Your task to perform on an android device: Go to eBay Image 0: 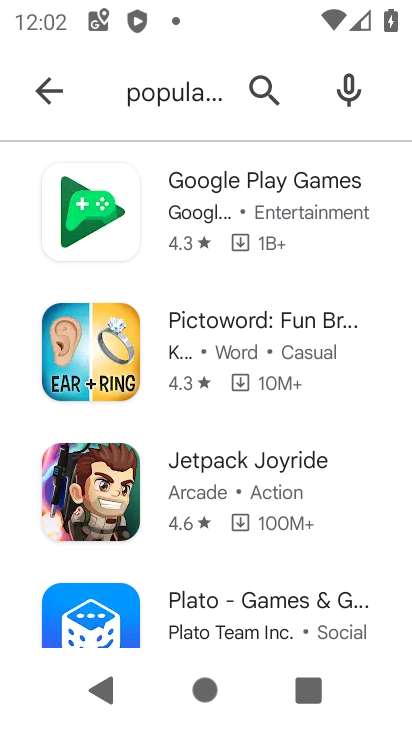
Step 0: press home button
Your task to perform on an android device: Go to eBay Image 1: 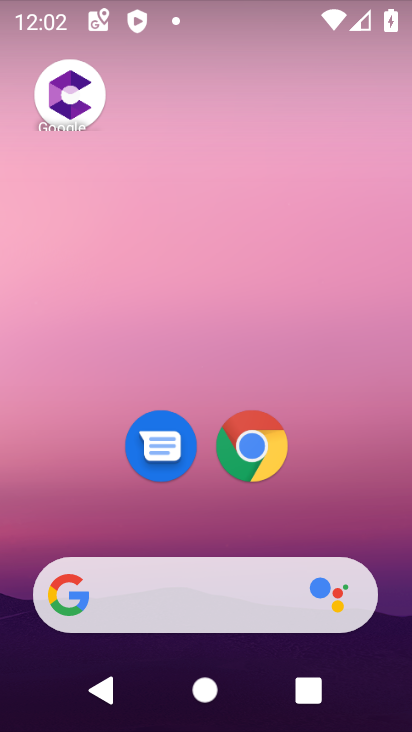
Step 1: drag from (337, 501) to (200, 0)
Your task to perform on an android device: Go to eBay Image 2: 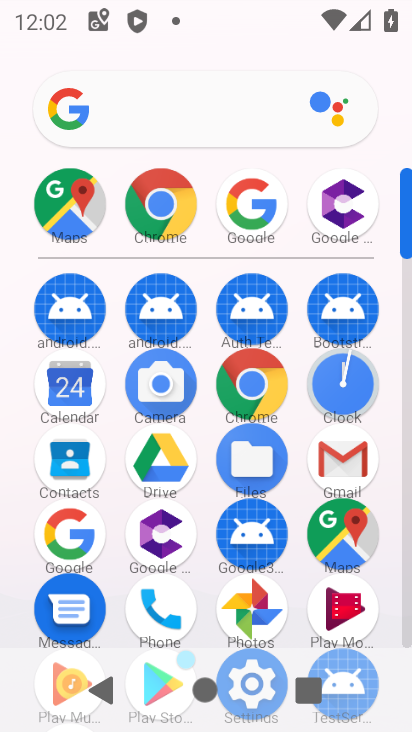
Step 2: click (165, 212)
Your task to perform on an android device: Go to eBay Image 3: 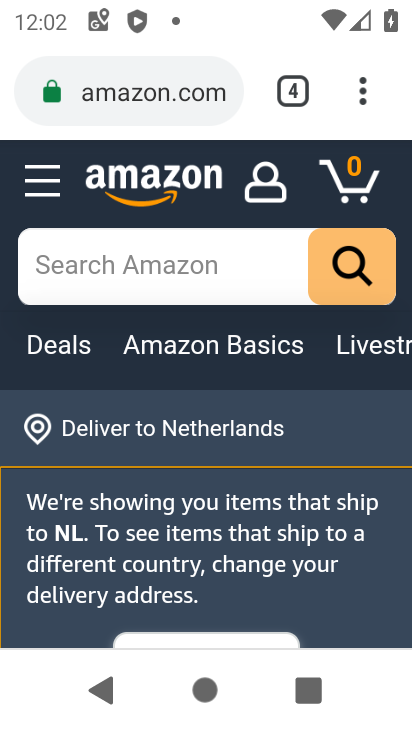
Step 3: click (137, 78)
Your task to perform on an android device: Go to eBay Image 4: 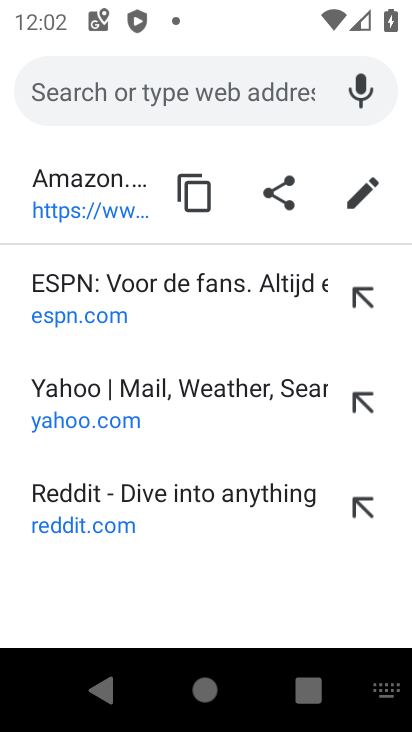
Step 4: type "ebay"
Your task to perform on an android device: Go to eBay Image 5: 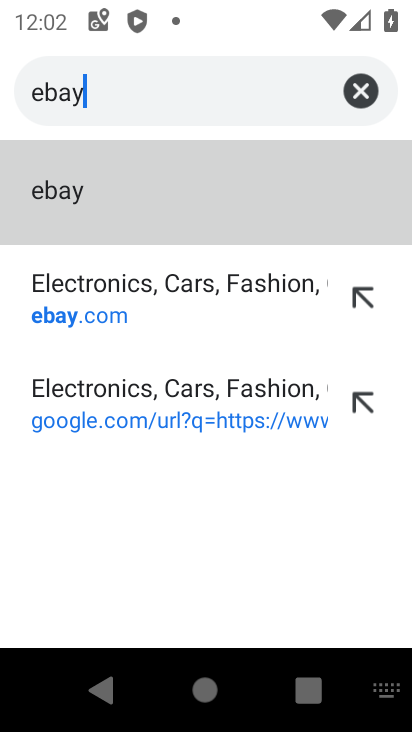
Step 5: click (129, 286)
Your task to perform on an android device: Go to eBay Image 6: 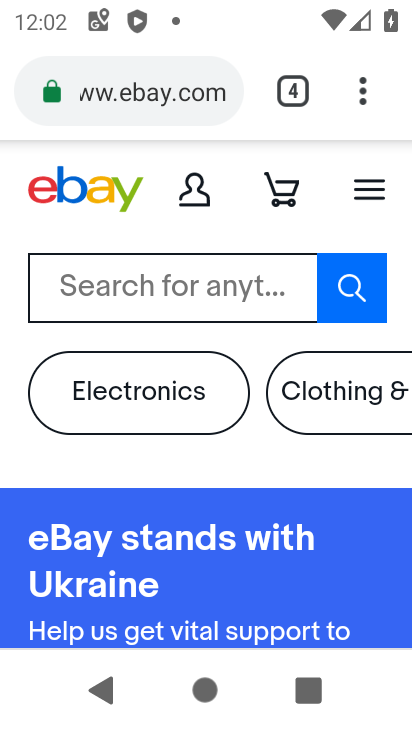
Step 6: task complete